Your task to perform on an android device: toggle location history Image 0: 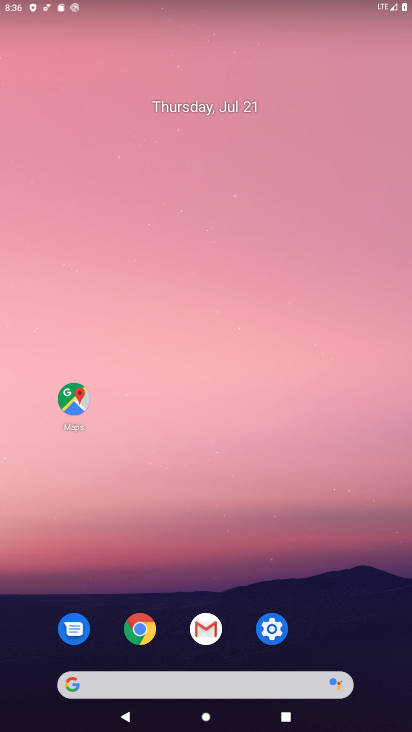
Step 0: click (287, 623)
Your task to perform on an android device: toggle location history Image 1: 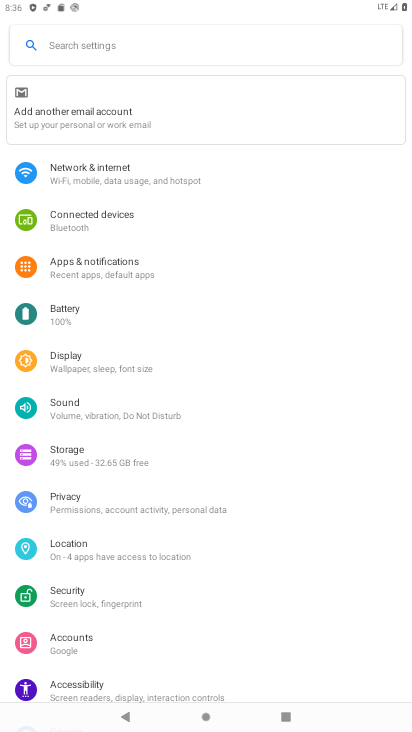
Step 1: click (105, 53)
Your task to perform on an android device: toggle location history Image 2: 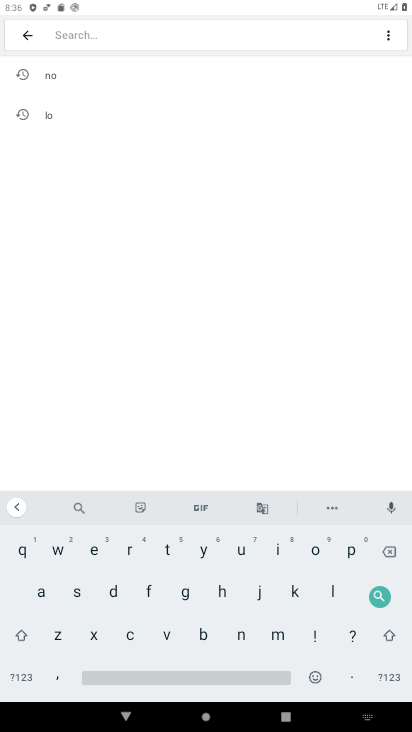
Step 2: click (59, 117)
Your task to perform on an android device: toggle location history Image 3: 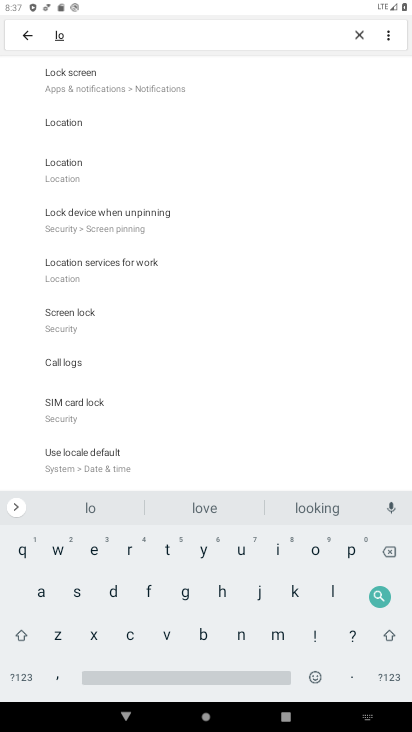
Step 3: click (93, 163)
Your task to perform on an android device: toggle location history Image 4: 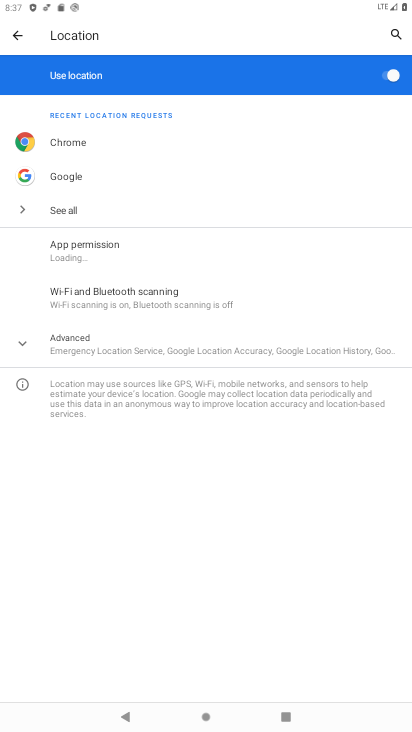
Step 4: click (49, 331)
Your task to perform on an android device: toggle location history Image 5: 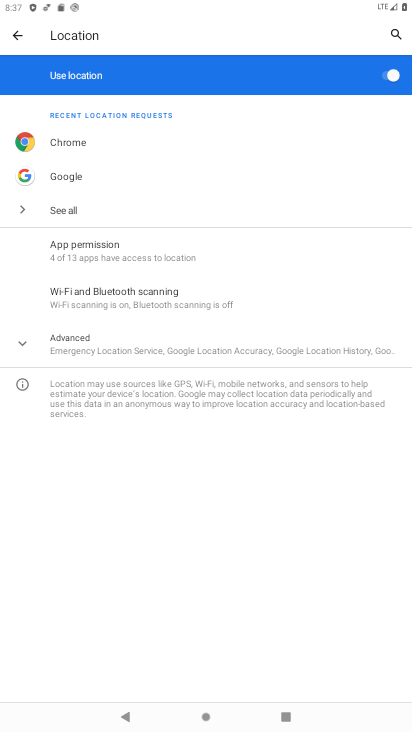
Step 5: click (51, 349)
Your task to perform on an android device: toggle location history Image 6: 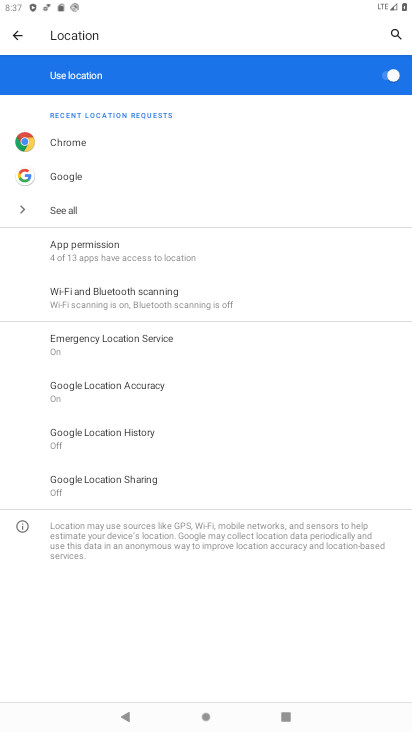
Step 6: click (138, 434)
Your task to perform on an android device: toggle location history Image 7: 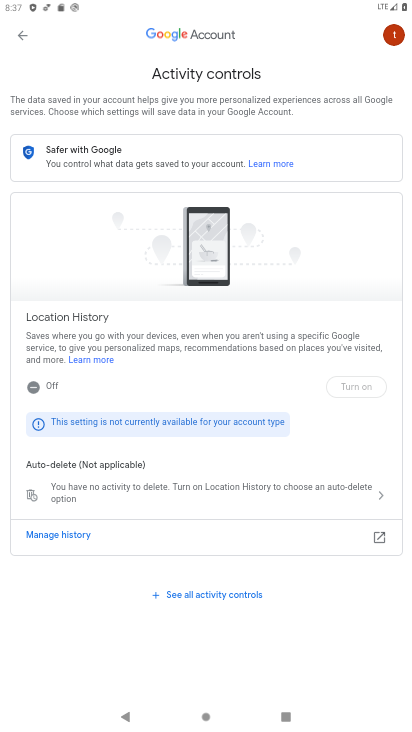
Step 7: task complete